Your task to perform on an android device: Open internet settings Image 0: 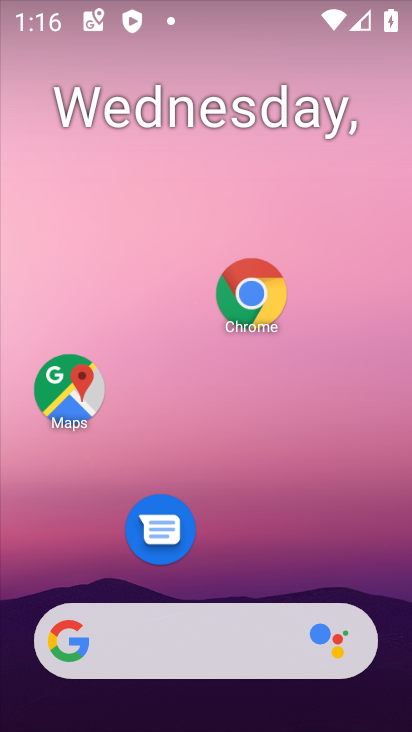
Step 0: drag from (236, 399) to (270, 111)
Your task to perform on an android device: Open internet settings Image 1: 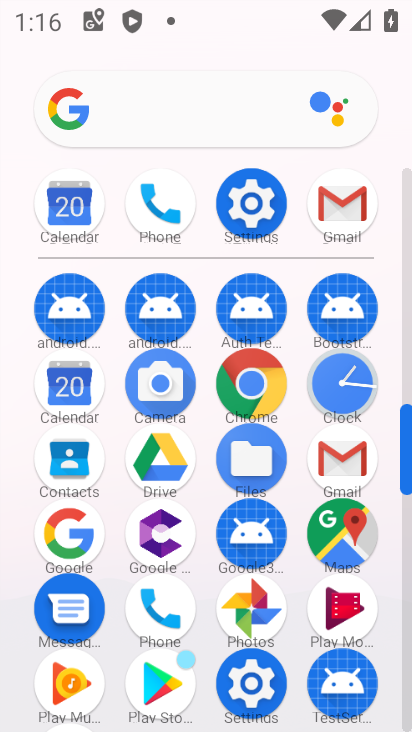
Step 1: click (267, 203)
Your task to perform on an android device: Open internet settings Image 2: 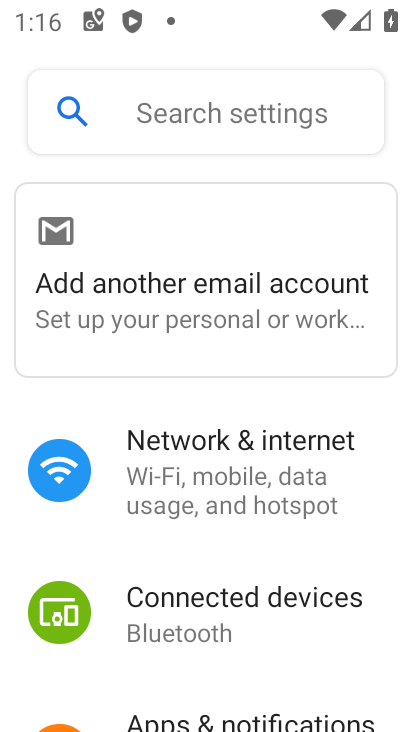
Step 2: click (214, 510)
Your task to perform on an android device: Open internet settings Image 3: 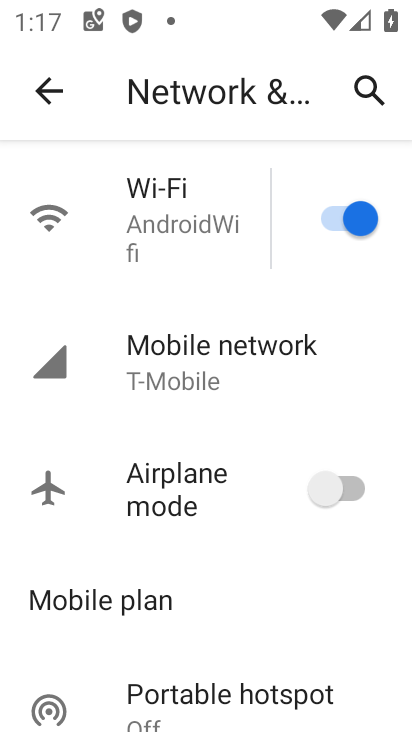
Step 3: click (221, 389)
Your task to perform on an android device: Open internet settings Image 4: 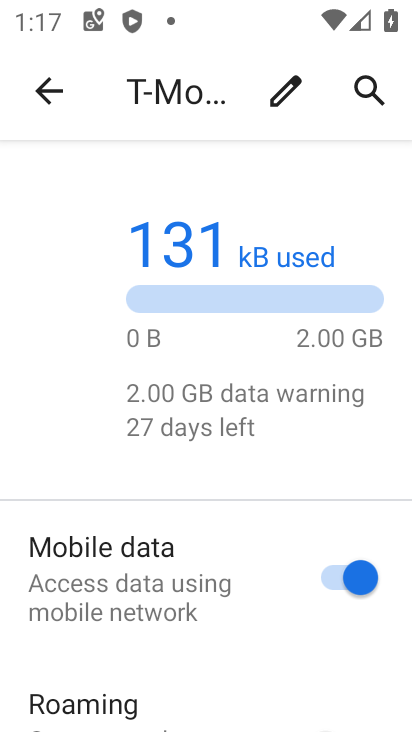
Step 4: task complete